Your task to perform on an android device: toggle notifications settings in the gmail app Image 0: 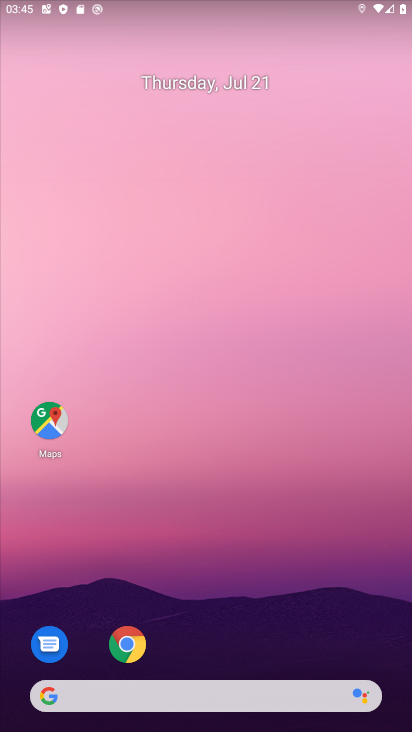
Step 0: drag from (227, 665) to (195, 57)
Your task to perform on an android device: toggle notifications settings in the gmail app Image 1: 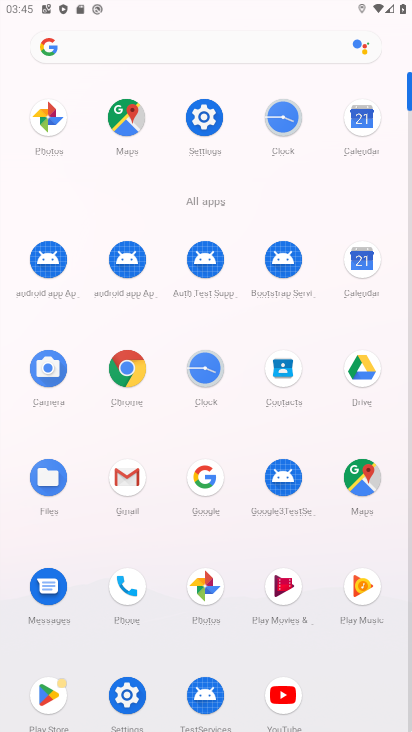
Step 1: click (127, 482)
Your task to perform on an android device: toggle notifications settings in the gmail app Image 2: 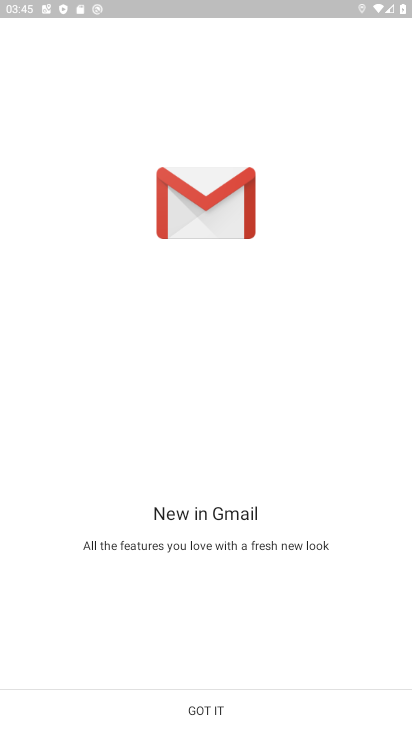
Step 2: click (190, 715)
Your task to perform on an android device: toggle notifications settings in the gmail app Image 3: 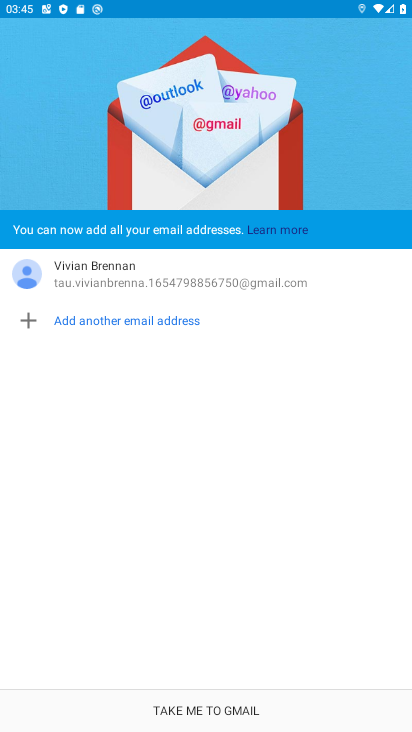
Step 3: click (190, 715)
Your task to perform on an android device: toggle notifications settings in the gmail app Image 4: 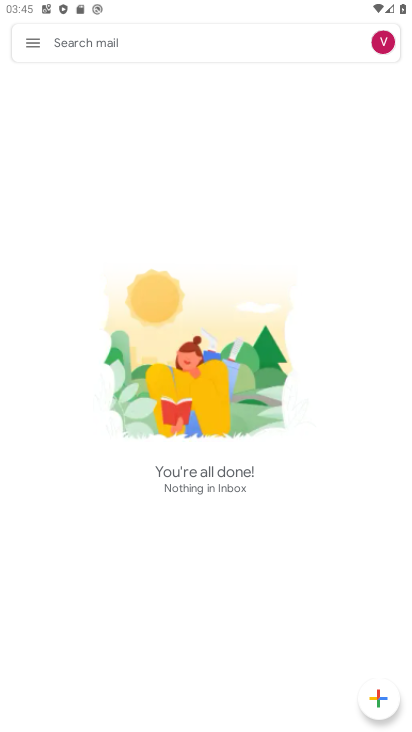
Step 4: click (34, 41)
Your task to perform on an android device: toggle notifications settings in the gmail app Image 5: 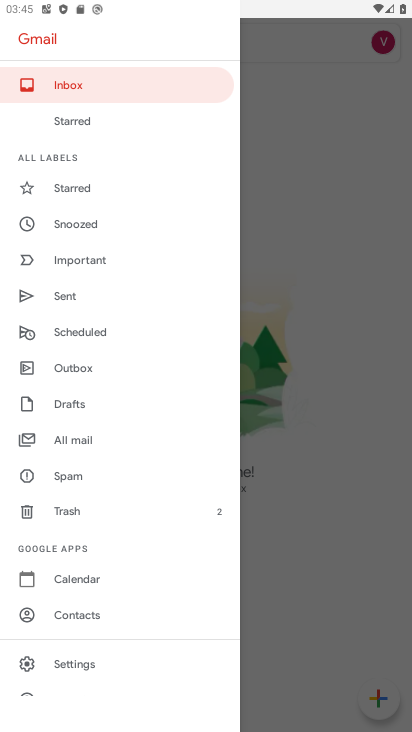
Step 5: click (65, 667)
Your task to perform on an android device: toggle notifications settings in the gmail app Image 6: 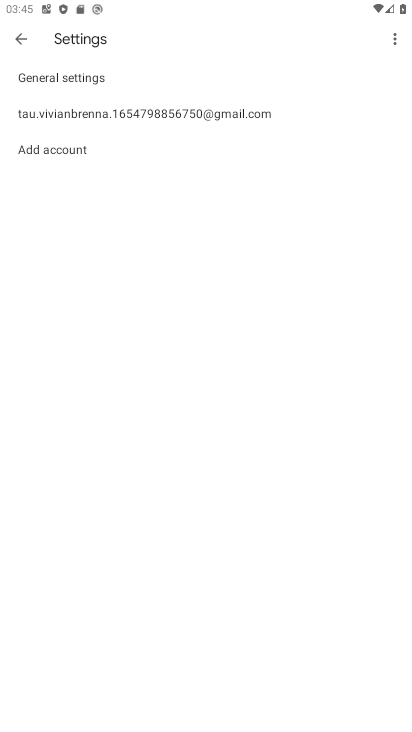
Step 6: click (86, 85)
Your task to perform on an android device: toggle notifications settings in the gmail app Image 7: 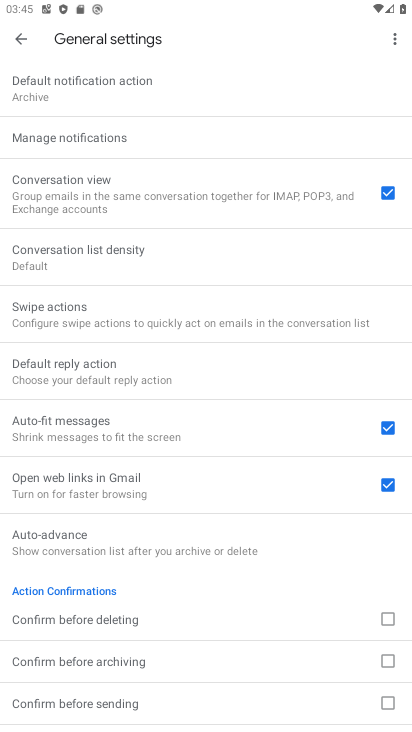
Step 7: click (87, 140)
Your task to perform on an android device: toggle notifications settings in the gmail app Image 8: 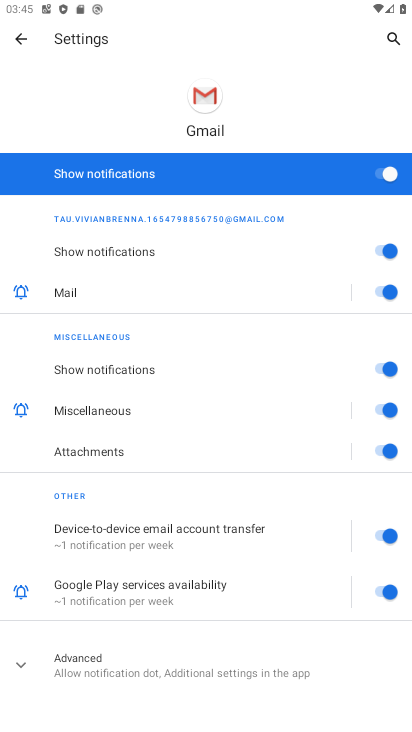
Step 8: click (385, 182)
Your task to perform on an android device: toggle notifications settings in the gmail app Image 9: 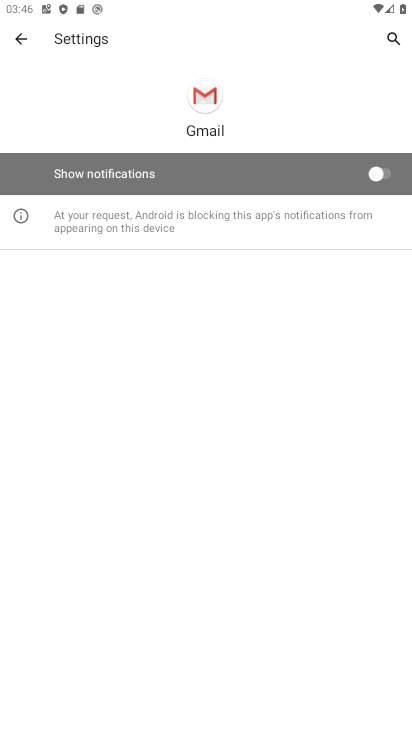
Step 9: task complete